Your task to perform on an android device: Open Google Image 0: 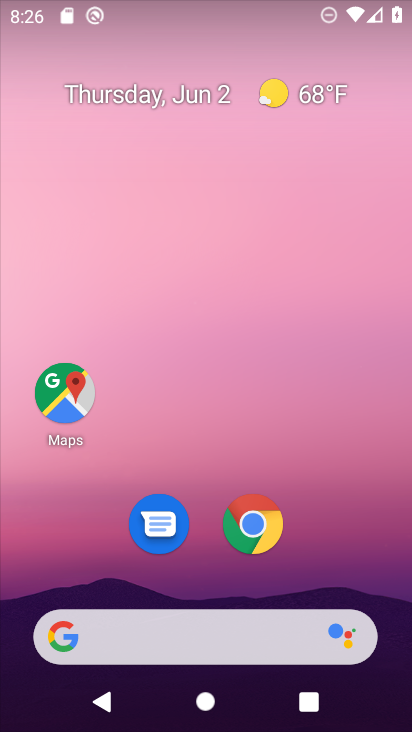
Step 0: click (216, 628)
Your task to perform on an android device: Open Google Image 1: 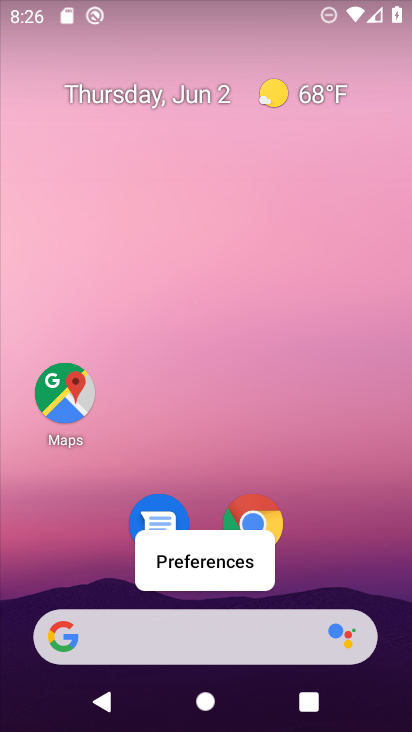
Step 1: click (103, 626)
Your task to perform on an android device: Open Google Image 2: 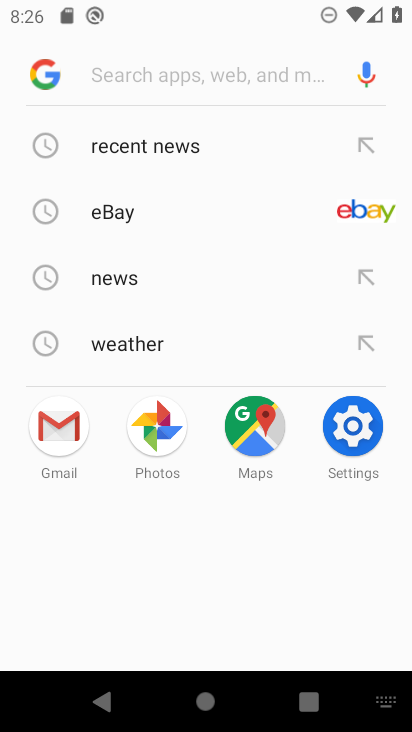
Step 2: click (42, 70)
Your task to perform on an android device: Open Google Image 3: 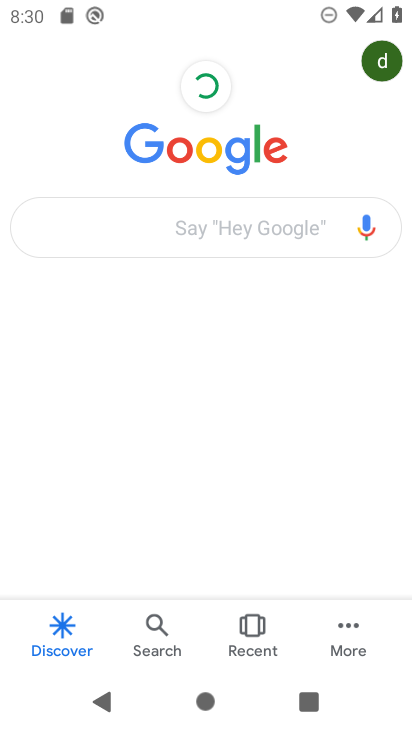
Step 3: task complete